Your task to perform on an android device: check storage Image 0: 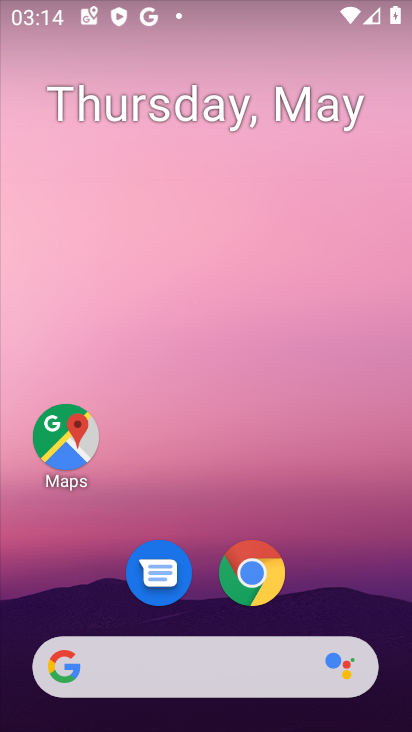
Step 0: drag from (329, 574) to (298, 235)
Your task to perform on an android device: check storage Image 1: 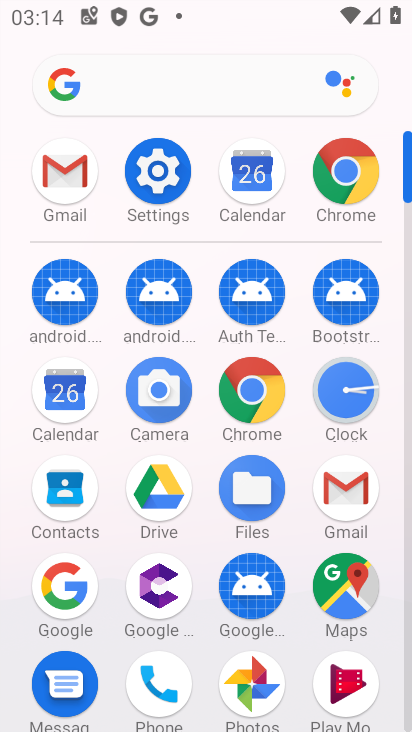
Step 1: click (140, 180)
Your task to perform on an android device: check storage Image 2: 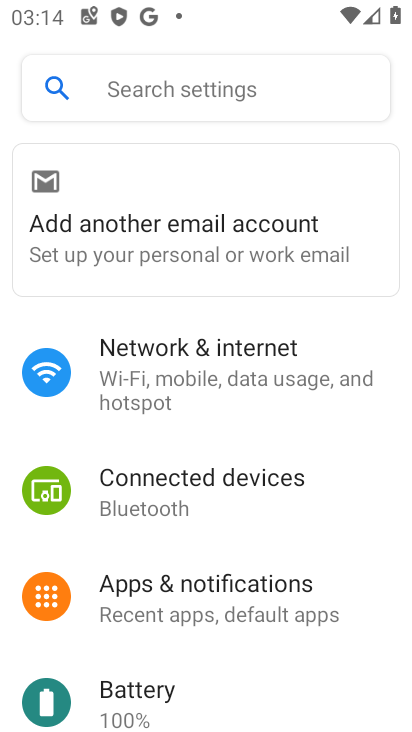
Step 2: drag from (230, 621) to (263, 281)
Your task to perform on an android device: check storage Image 3: 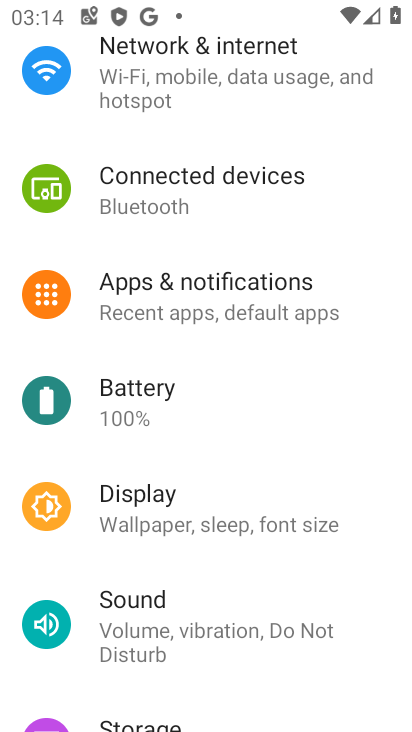
Step 3: drag from (187, 566) to (250, 299)
Your task to perform on an android device: check storage Image 4: 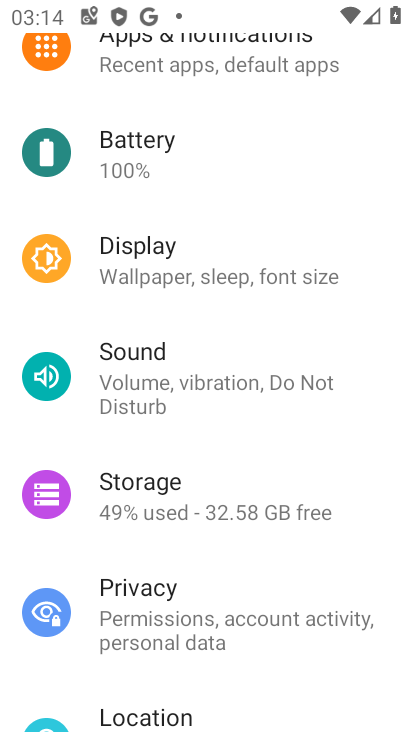
Step 4: click (169, 489)
Your task to perform on an android device: check storage Image 5: 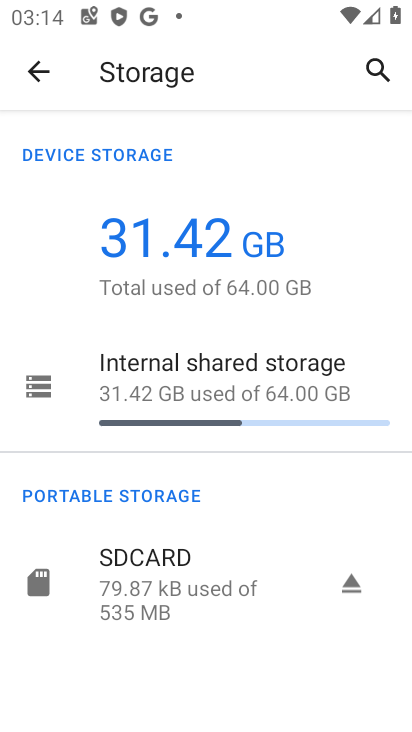
Step 5: task complete